Your task to perform on an android device: Is it going to rain this weekend? Image 0: 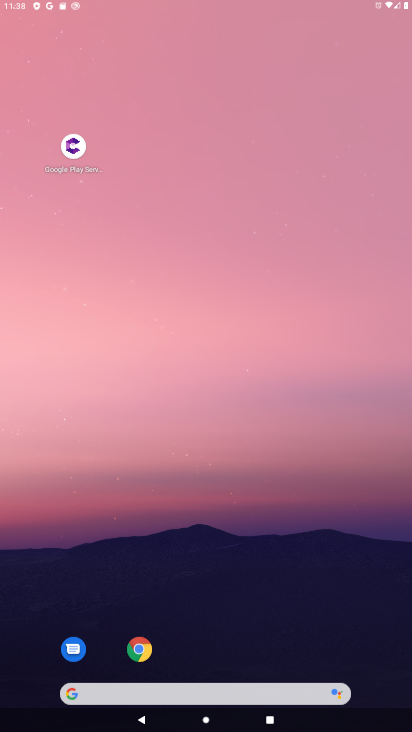
Step 0: click (278, 141)
Your task to perform on an android device: Is it going to rain this weekend? Image 1: 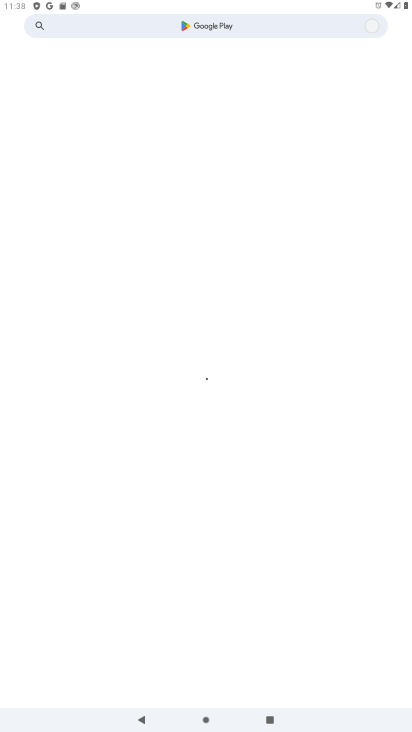
Step 1: press home button
Your task to perform on an android device: Is it going to rain this weekend? Image 2: 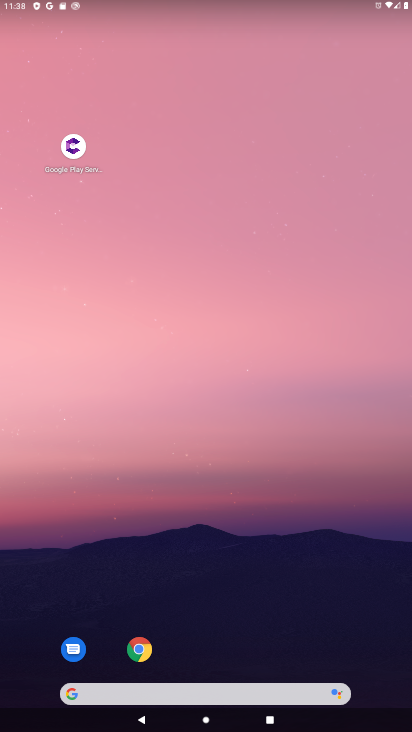
Step 2: drag from (287, 624) to (231, 118)
Your task to perform on an android device: Is it going to rain this weekend? Image 3: 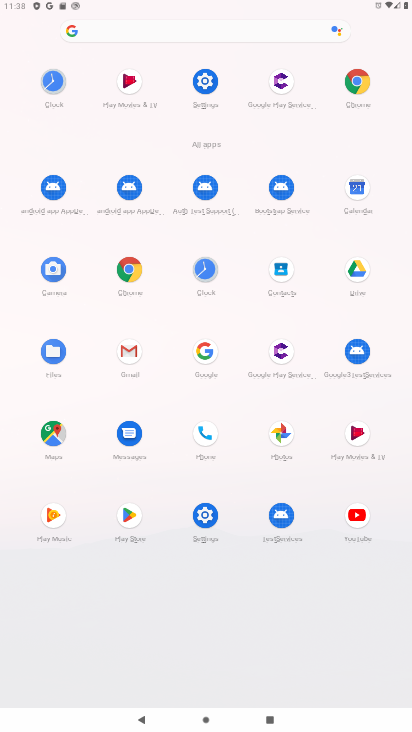
Step 3: click (128, 274)
Your task to perform on an android device: Is it going to rain this weekend? Image 4: 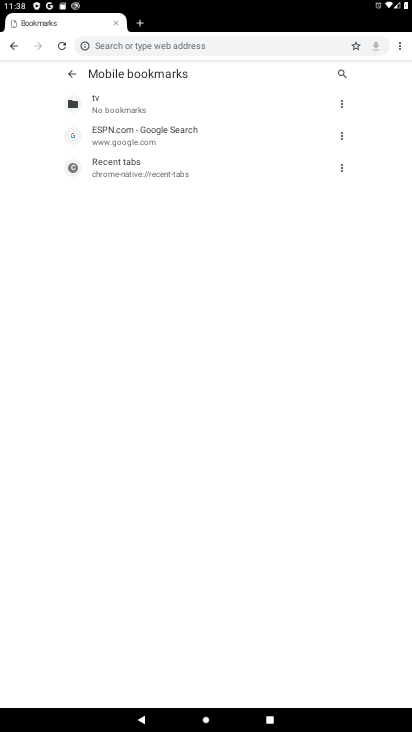
Step 4: click (198, 45)
Your task to perform on an android device: Is it going to rain this weekend? Image 5: 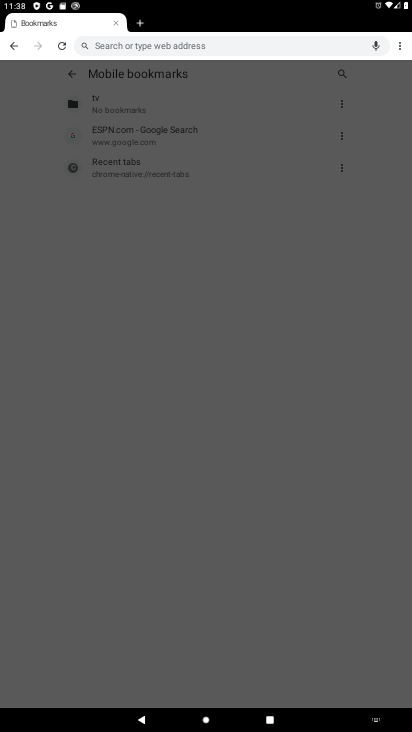
Step 5: type "weather"
Your task to perform on an android device: Is it going to rain this weekend? Image 6: 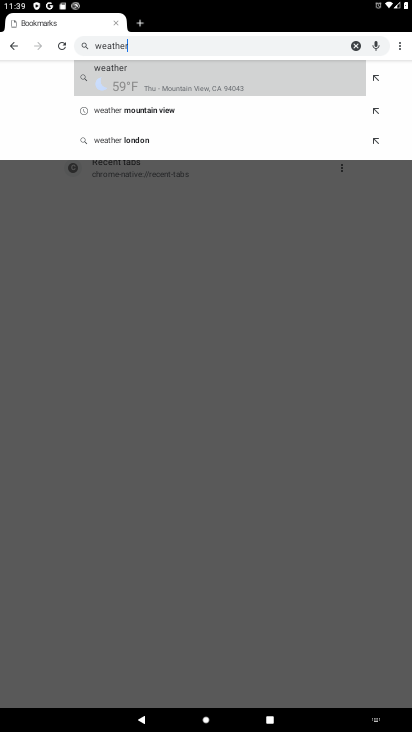
Step 6: click (151, 88)
Your task to perform on an android device: Is it going to rain this weekend? Image 7: 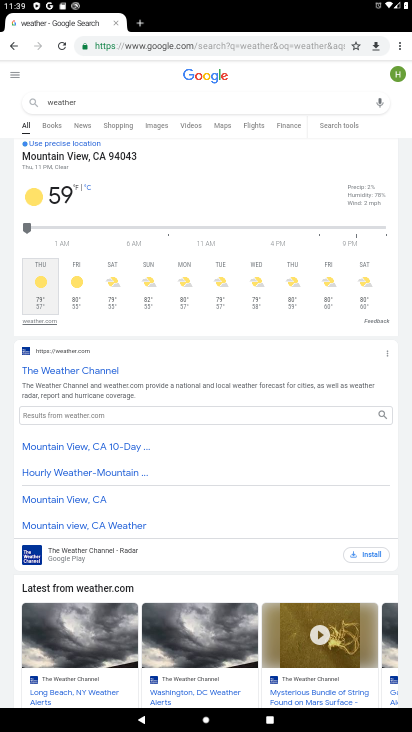
Step 7: click (159, 278)
Your task to perform on an android device: Is it going to rain this weekend? Image 8: 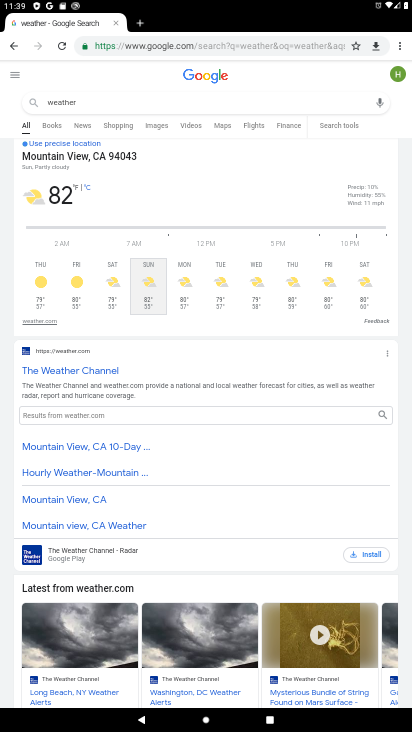
Step 8: task complete